Your task to perform on an android device: turn off data saver in the chrome app Image 0: 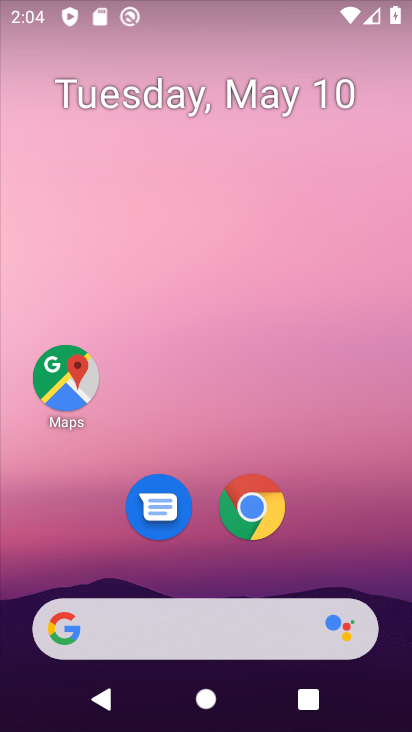
Step 0: click (247, 514)
Your task to perform on an android device: turn off data saver in the chrome app Image 1: 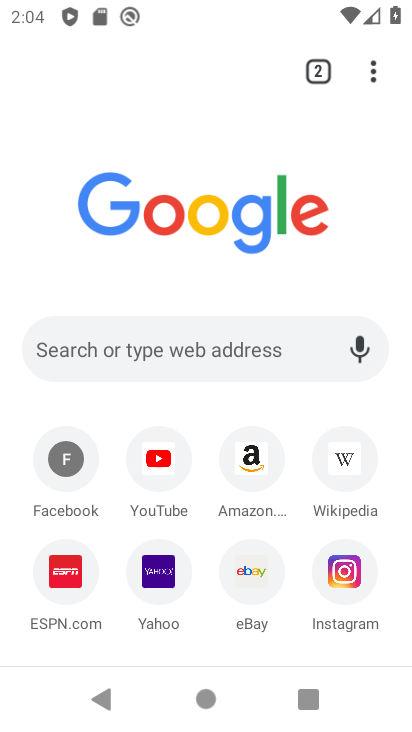
Step 1: click (375, 75)
Your task to perform on an android device: turn off data saver in the chrome app Image 2: 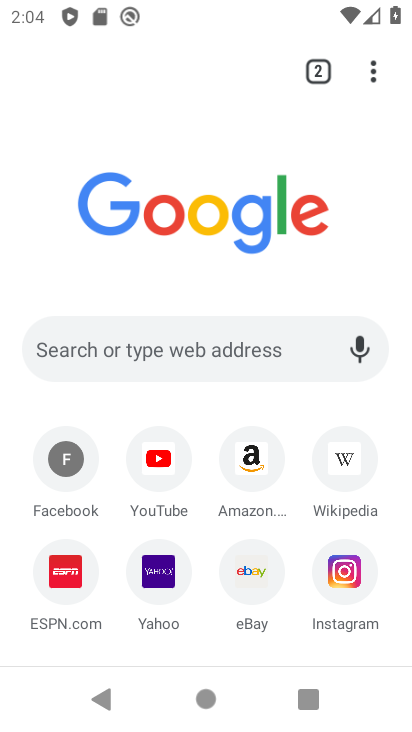
Step 2: click (375, 75)
Your task to perform on an android device: turn off data saver in the chrome app Image 3: 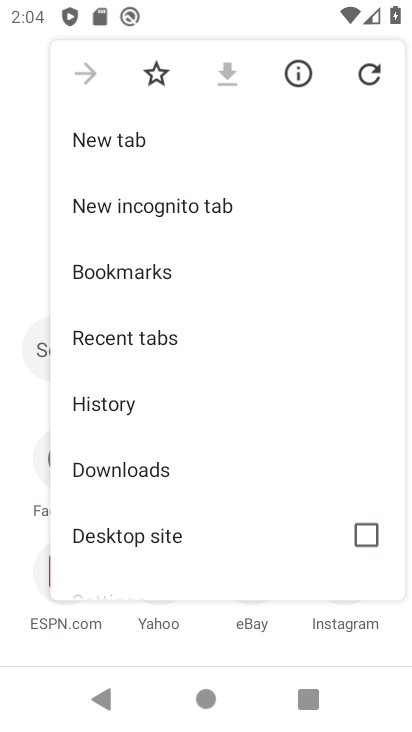
Step 3: drag from (145, 571) to (174, 186)
Your task to perform on an android device: turn off data saver in the chrome app Image 4: 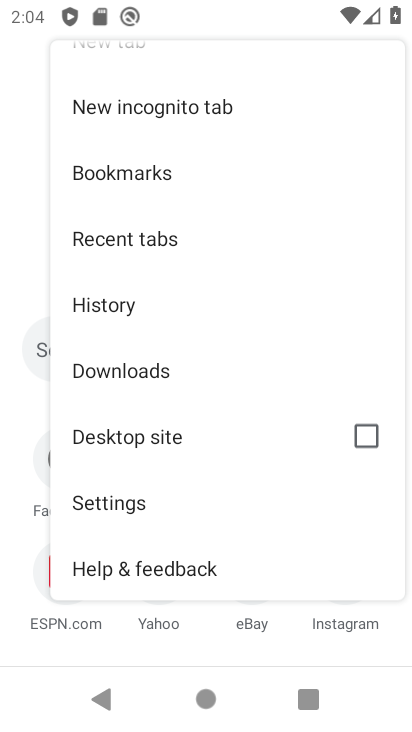
Step 4: click (114, 500)
Your task to perform on an android device: turn off data saver in the chrome app Image 5: 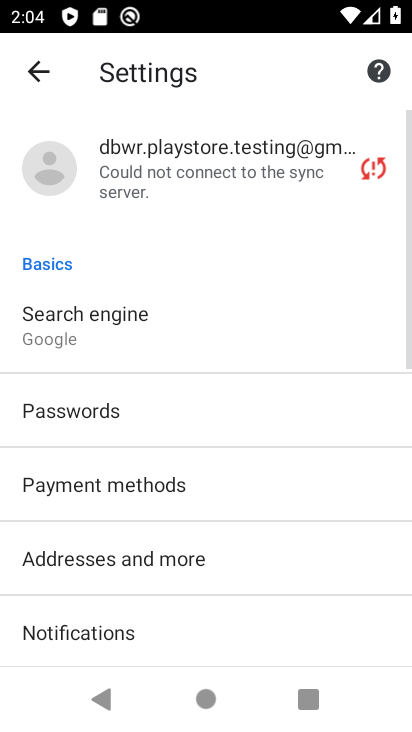
Step 5: drag from (142, 646) to (146, 184)
Your task to perform on an android device: turn off data saver in the chrome app Image 6: 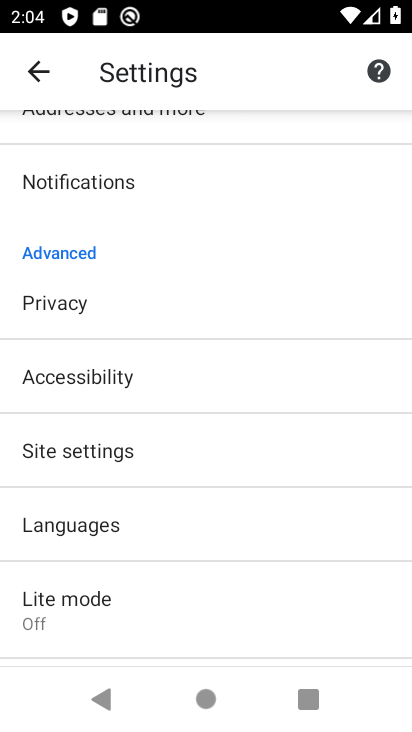
Step 6: click (65, 612)
Your task to perform on an android device: turn off data saver in the chrome app Image 7: 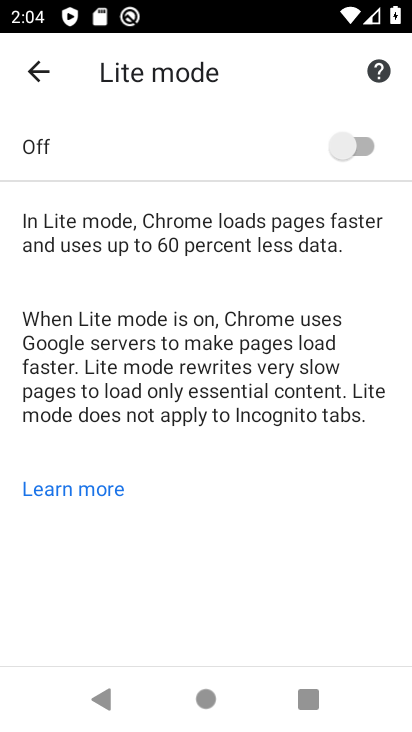
Step 7: task complete